Your task to perform on an android device: When is my next meeting? Image 0: 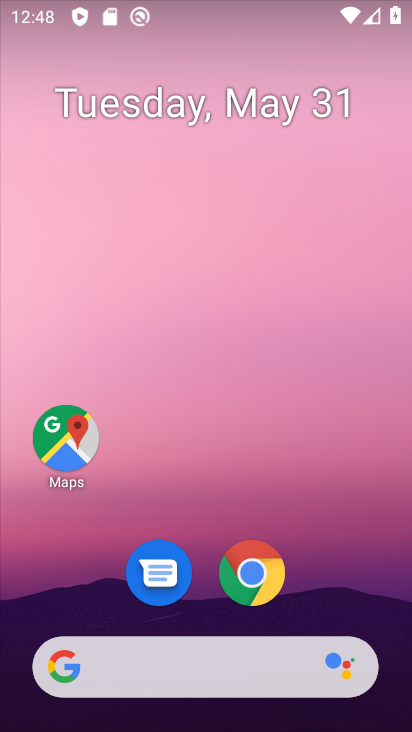
Step 0: drag from (363, 569) to (324, 131)
Your task to perform on an android device: When is my next meeting? Image 1: 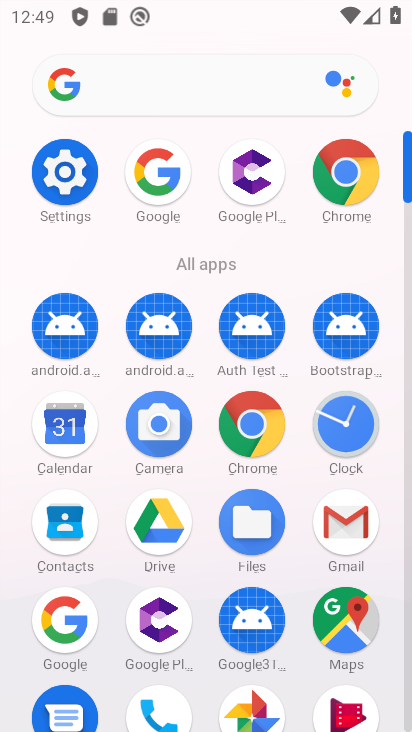
Step 1: click (55, 437)
Your task to perform on an android device: When is my next meeting? Image 2: 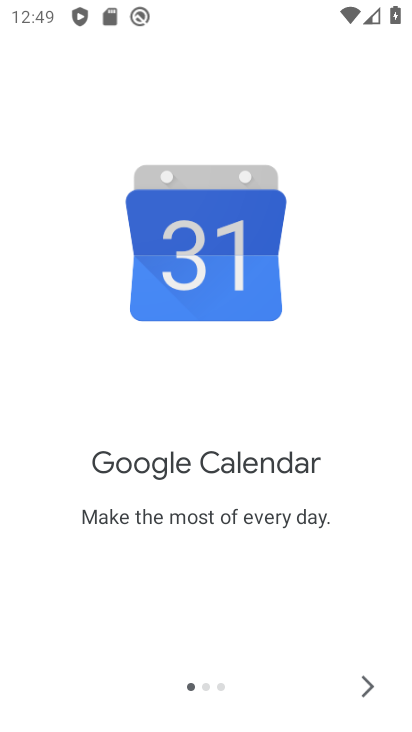
Step 2: click (366, 690)
Your task to perform on an android device: When is my next meeting? Image 3: 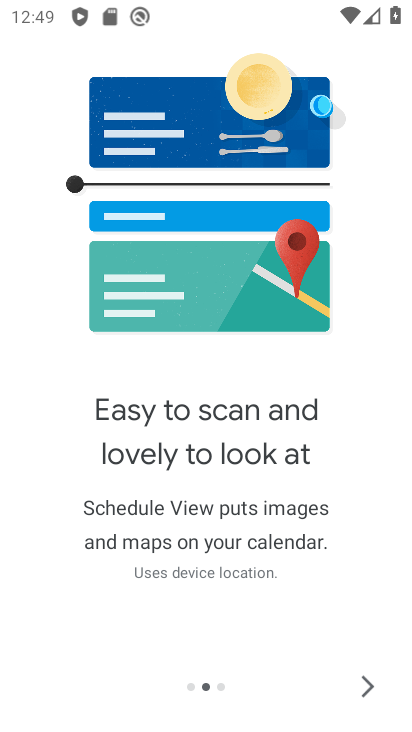
Step 3: click (362, 692)
Your task to perform on an android device: When is my next meeting? Image 4: 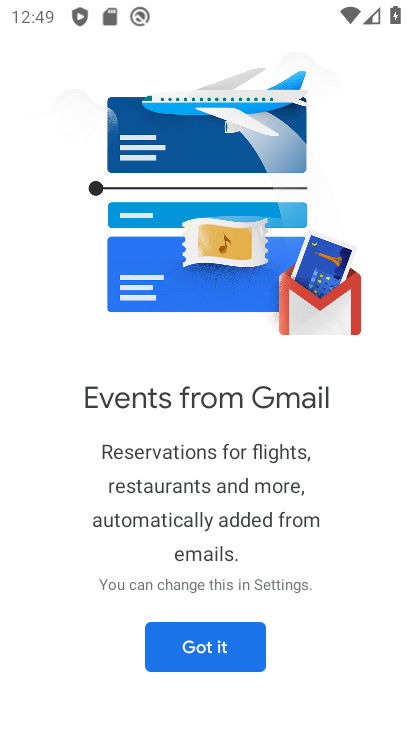
Step 4: click (201, 650)
Your task to perform on an android device: When is my next meeting? Image 5: 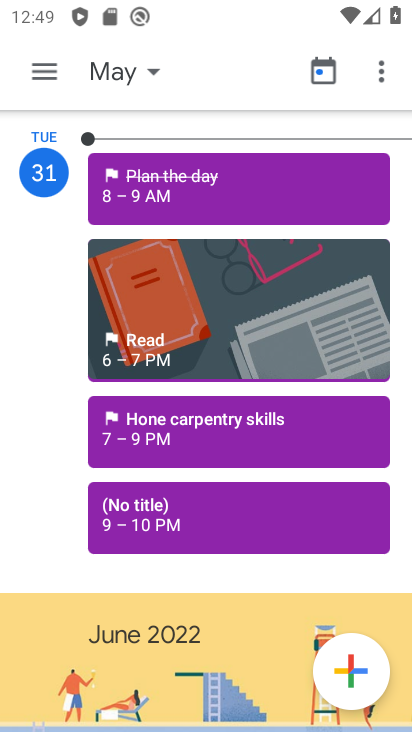
Step 5: drag from (211, 515) to (194, 225)
Your task to perform on an android device: When is my next meeting? Image 6: 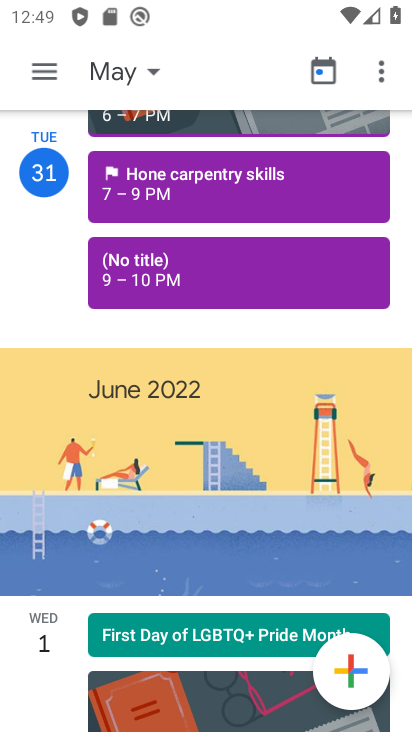
Step 6: drag from (166, 556) to (167, 278)
Your task to perform on an android device: When is my next meeting? Image 7: 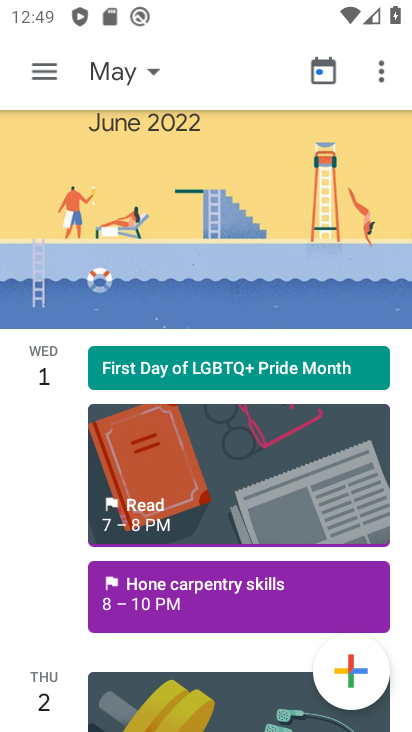
Step 7: click (201, 482)
Your task to perform on an android device: When is my next meeting? Image 8: 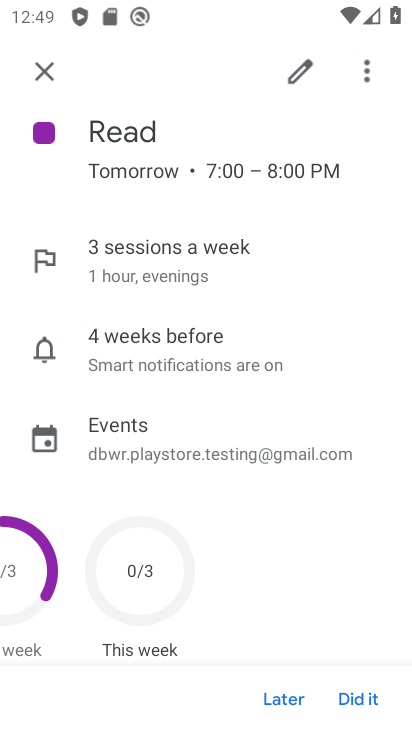
Step 8: task complete